Your task to perform on an android device: empty trash in google photos Image 0: 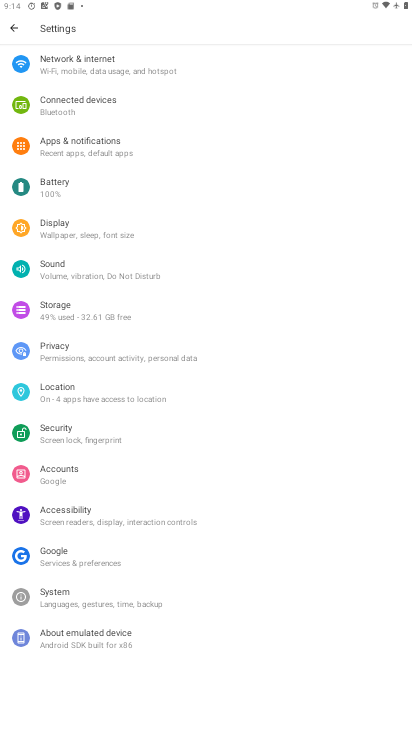
Step 0: press home button
Your task to perform on an android device: empty trash in google photos Image 1: 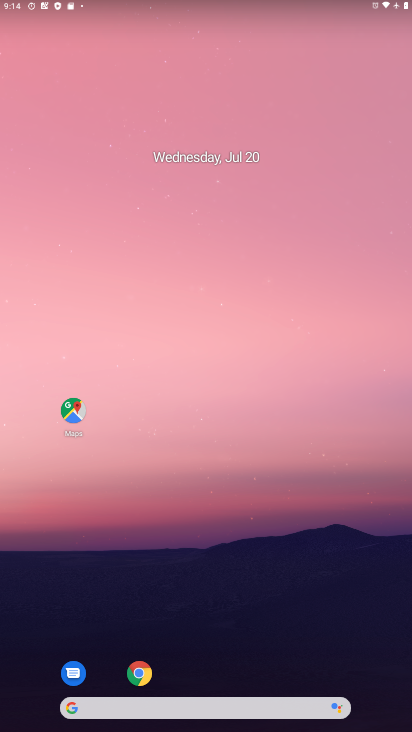
Step 1: drag from (195, 636) to (187, 52)
Your task to perform on an android device: empty trash in google photos Image 2: 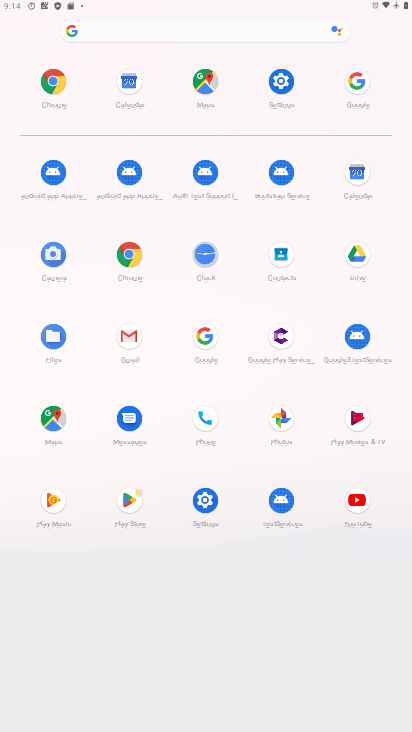
Step 2: click (281, 416)
Your task to perform on an android device: empty trash in google photos Image 3: 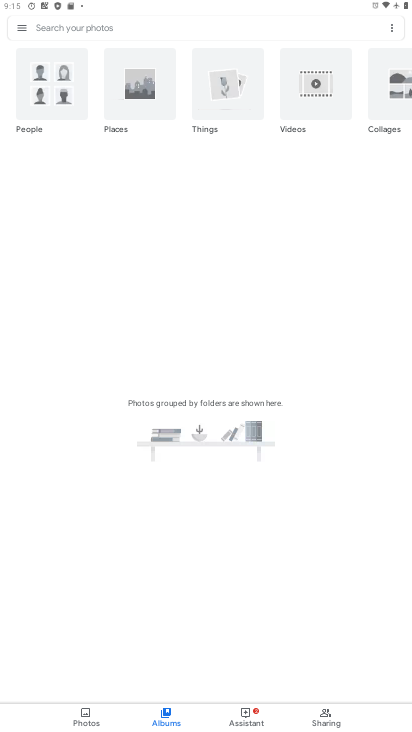
Step 3: click (18, 26)
Your task to perform on an android device: empty trash in google photos Image 4: 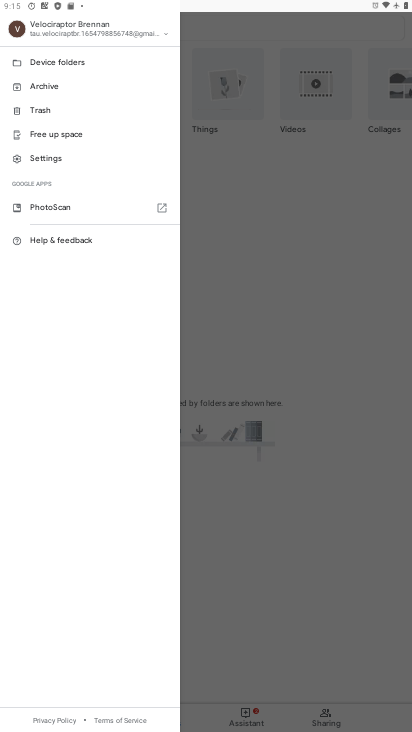
Step 4: click (43, 112)
Your task to perform on an android device: empty trash in google photos Image 5: 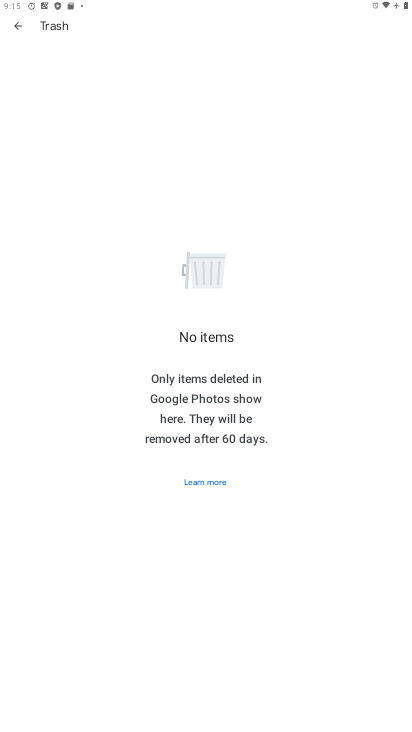
Step 5: task complete